Your task to perform on an android device: clear history in the chrome app Image 0: 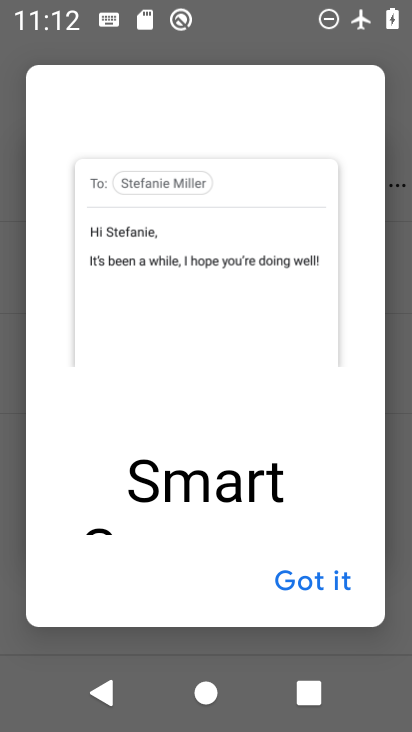
Step 0: press home button
Your task to perform on an android device: clear history in the chrome app Image 1: 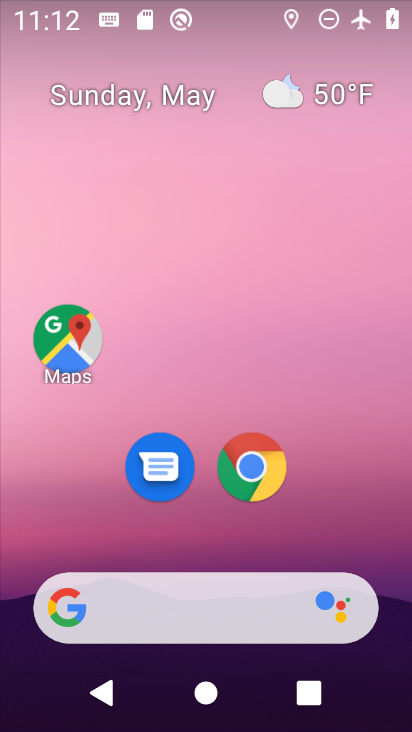
Step 1: click (256, 484)
Your task to perform on an android device: clear history in the chrome app Image 2: 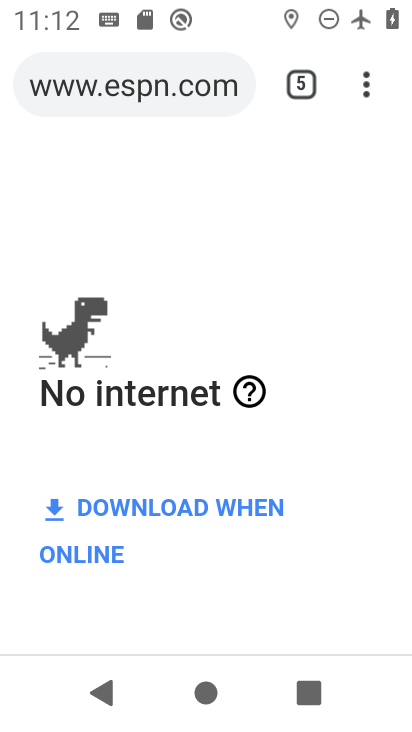
Step 2: drag from (357, 94) to (135, 459)
Your task to perform on an android device: clear history in the chrome app Image 3: 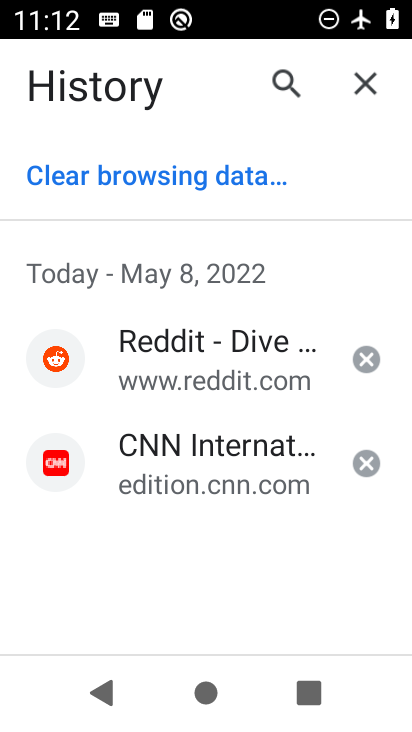
Step 3: click (112, 172)
Your task to perform on an android device: clear history in the chrome app Image 4: 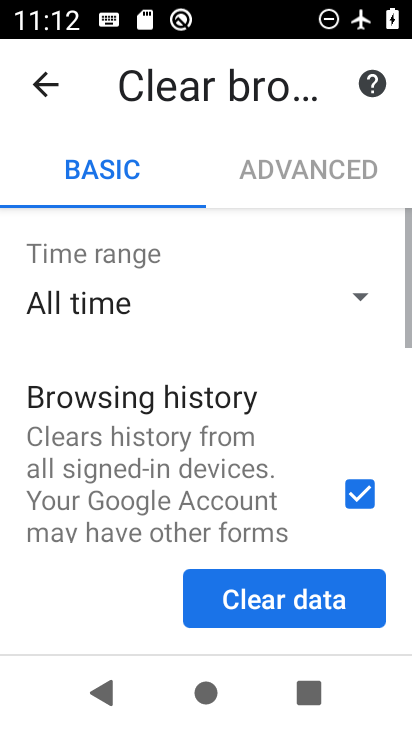
Step 4: drag from (225, 471) to (212, 301)
Your task to perform on an android device: clear history in the chrome app Image 5: 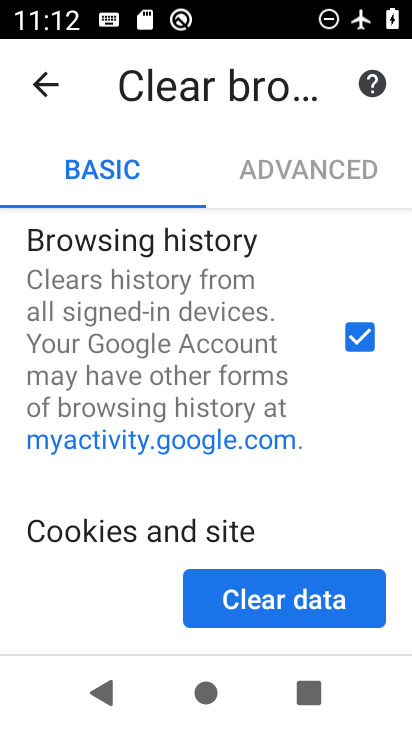
Step 5: click (255, 590)
Your task to perform on an android device: clear history in the chrome app Image 6: 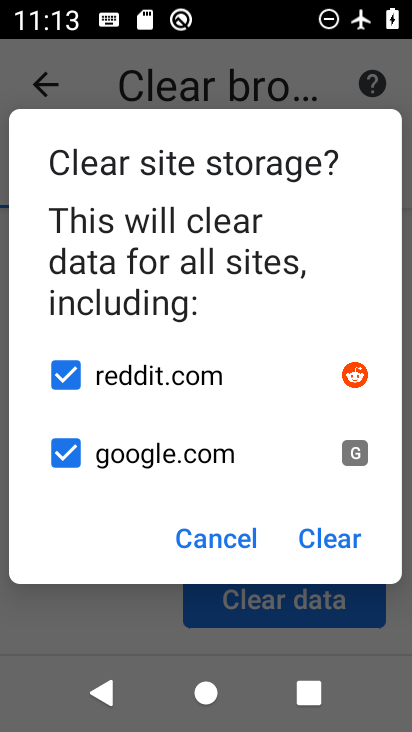
Step 6: click (329, 535)
Your task to perform on an android device: clear history in the chrome app Image 7: 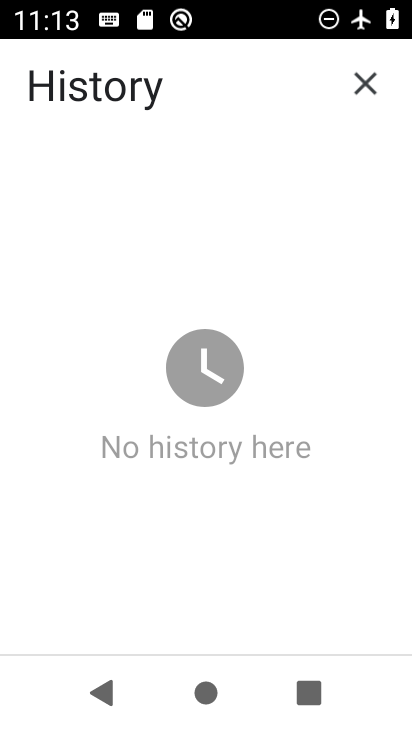
Step 7: task complete